Your task to perform on an android device: Open accessibility settings Image 0: 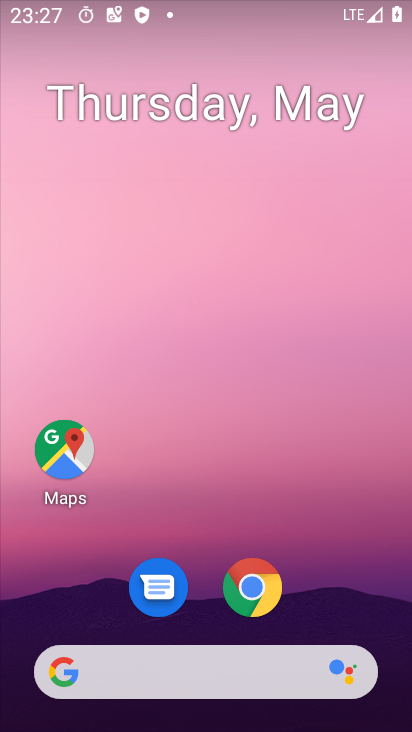
Step 0: drag from (359, 637) to (409, 302)
Your task to perform on an android device: Open accessibility settings Image 1: 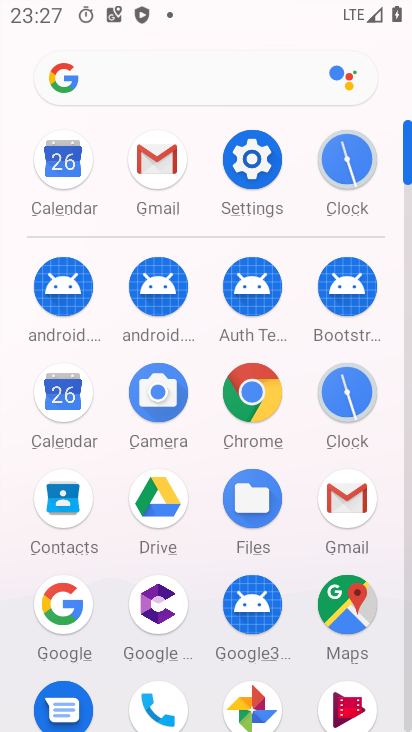
Step 1: click (248, 165)
Your task to perform on an android device: Open accessibility settings Image 2: 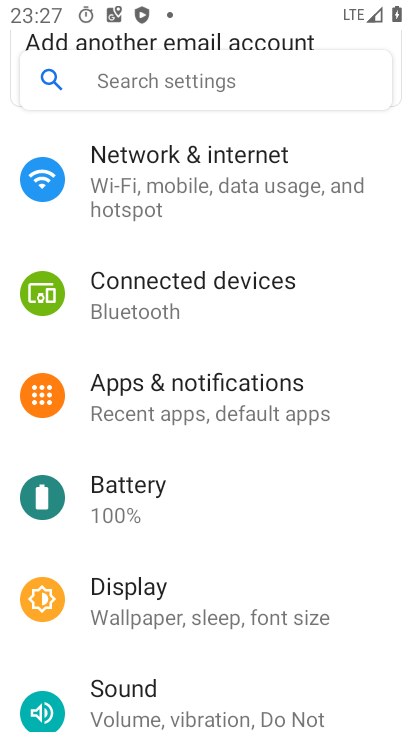
Step 2: drag from (341, 617) to (340, 308)
Your task to perform on an android device: Open accessibility settings Image 3: 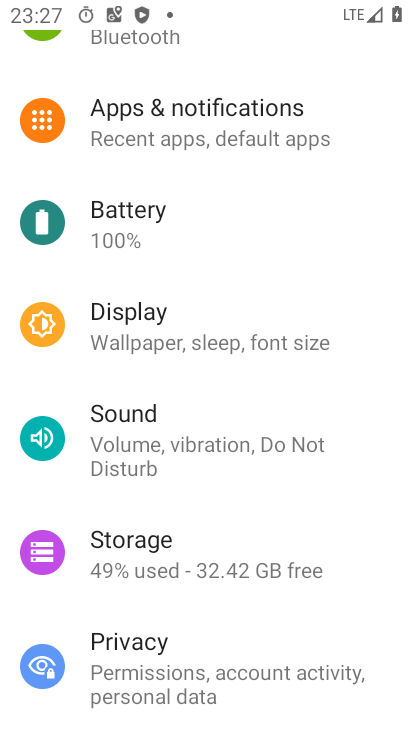
Step 3: drag from (246, 606) to (230, 220)
Your task to perform on an android device: Open accessibility settings Image 4: 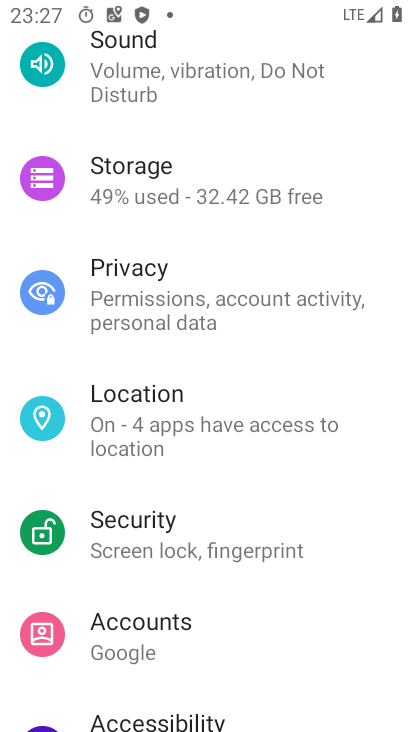
Step 4: drag from (228, 561) to (232, 211)
Your task to perform on an android device: Open accessibility settings Image 5: 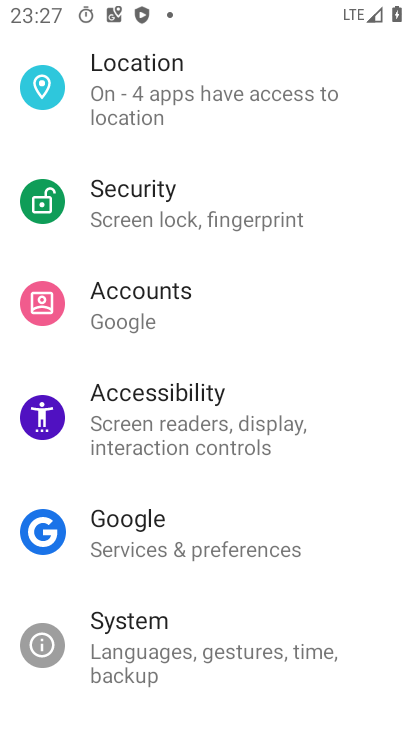
Step 5: click (181, 405)
Your task to perform on an android device: Open accessibility settings Image 6: 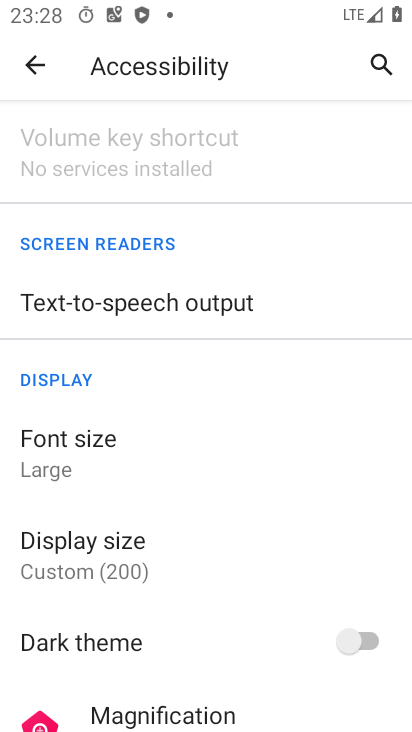
Step 6: task complete